Your task to perform on an android device: Go to accessibility settings Image 0: 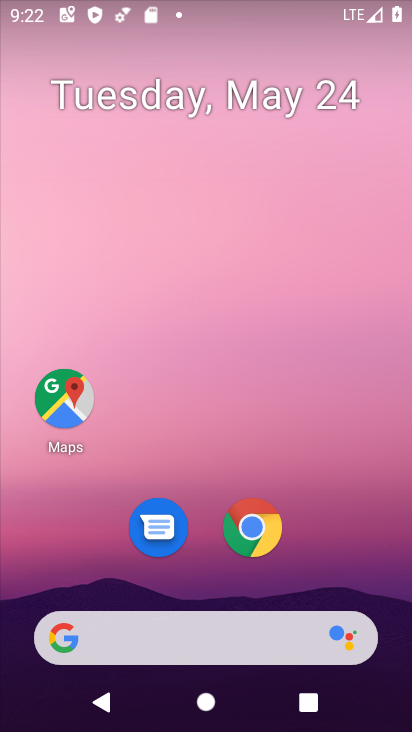
Step 0: drag from (202, 463) to (225, 98)
Your task to perform on an android device: Go to accessibility settings Image 1: 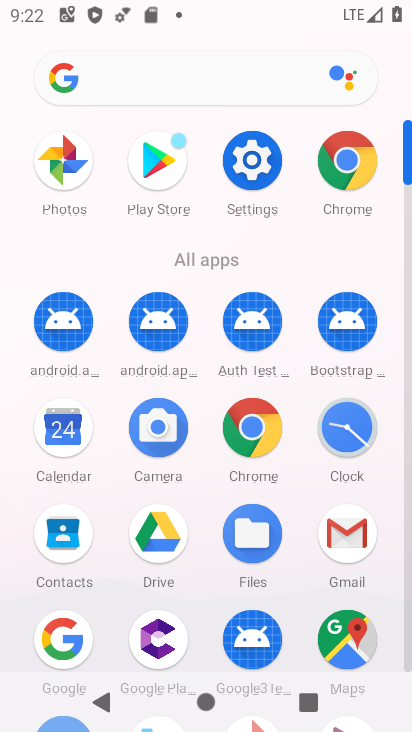
Step 1: click (251, 167)
Your task to perform on an android device: Go to accessibility settings Image 2: 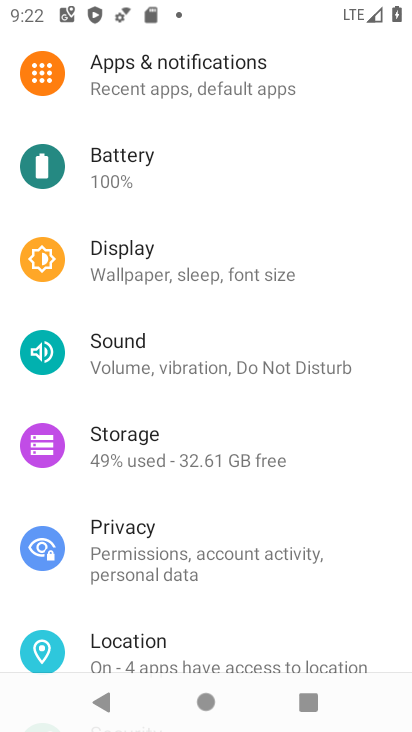
Step 2: drag from (169, 493) to (214, 77)
Your task to perform on an android device: Go to accessibility settings Image 3: 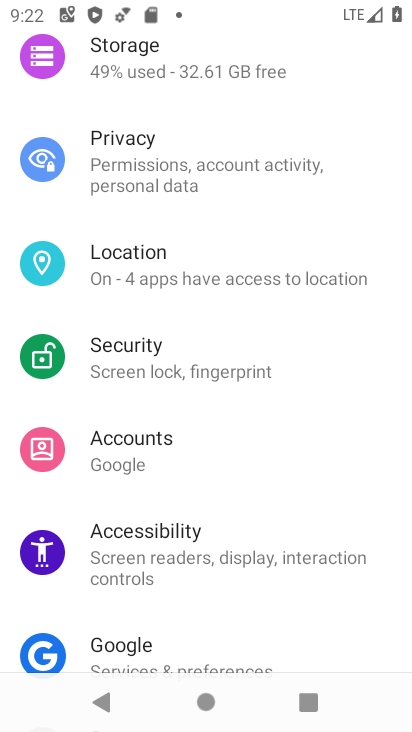
Step 3: click (190, 543)
Your task to perform on an android device: Go to accessibility settings Image 4: 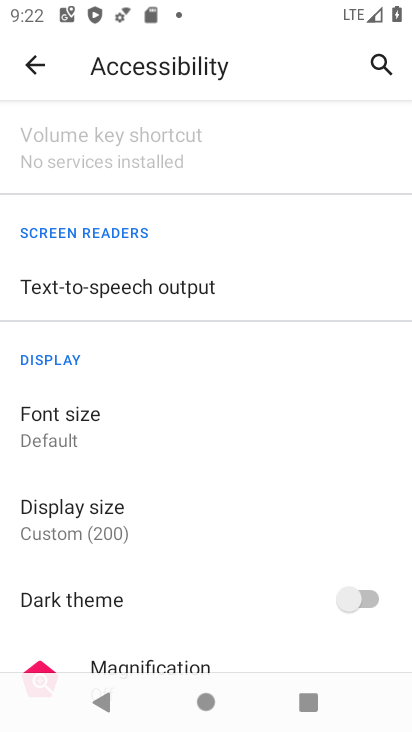
Step 4: task complete